Your task to perform on an android device: Go to Yahoo.com Image 0: 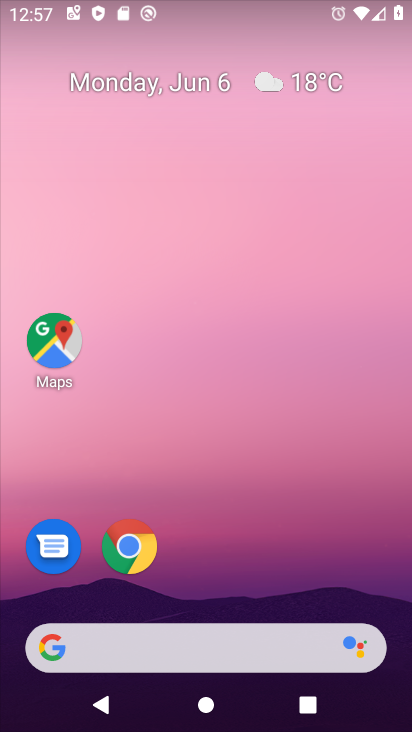
Step 0: click (198, 643)
Your task to perform on an android device: Go to Yahoo.com Image 1: 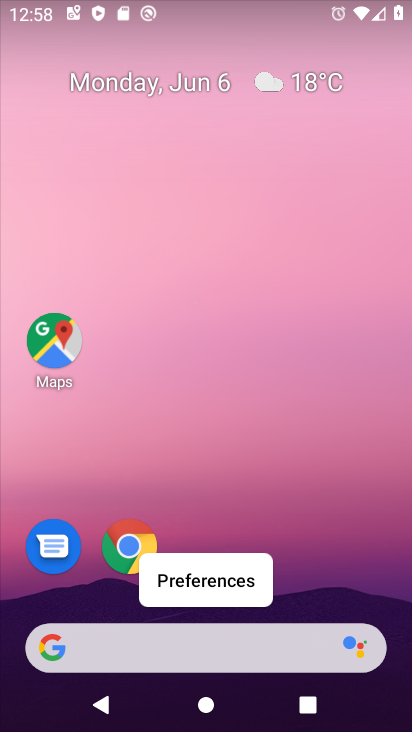
Step 1: type "Yahoo.com"
Your task to perform on an android device: Go to Yahoo.com Image 2: 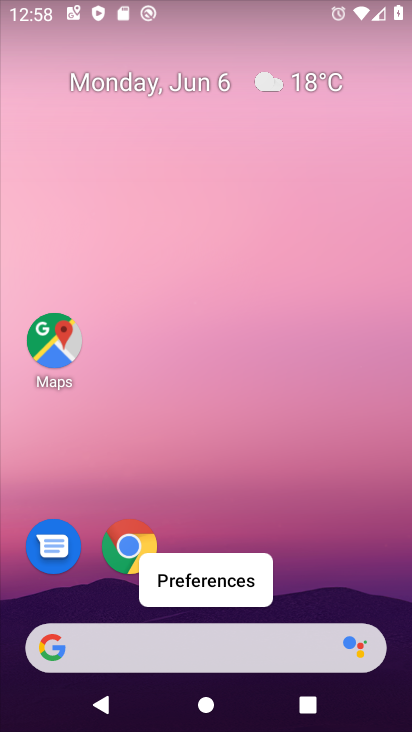
Step 2: click (165, 647)
Your task to perform on an android device: Go to Yahoo.com Image 3: 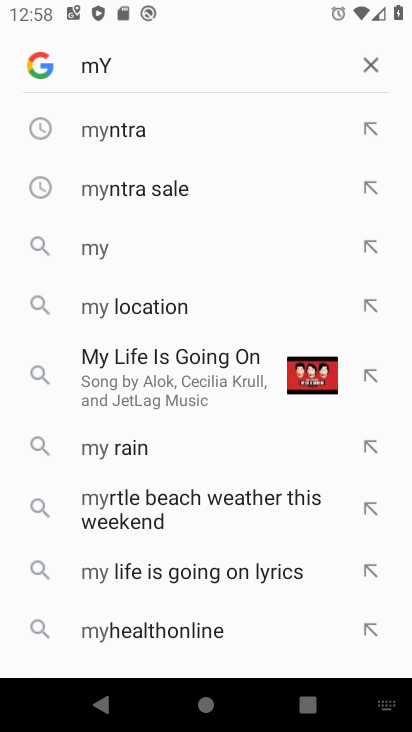
Step 3: click (370, 60)
Your task to perform on an android device: Go to Yahoo.com Image 4: 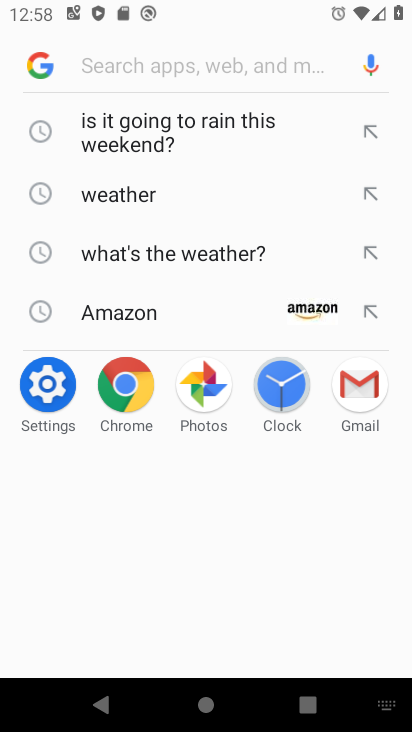
Step 4: type "Yahoo.com"
Your task to perform on an android device: Go to Yahoo.com Image 5: 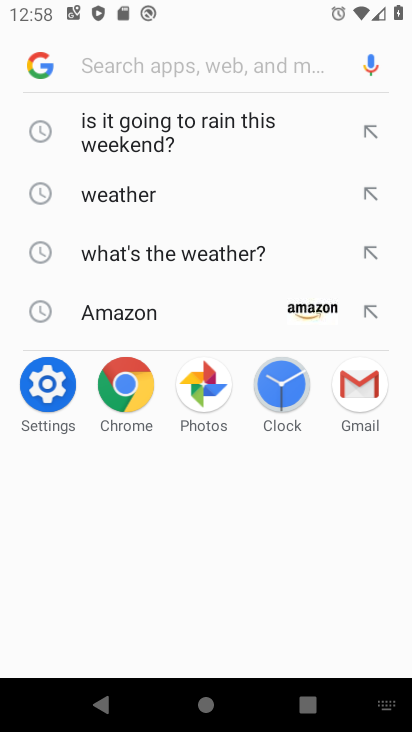
Step 5: click (183, 67)
Your task to perform on an android device: Go to Yahoo.com Image 6: 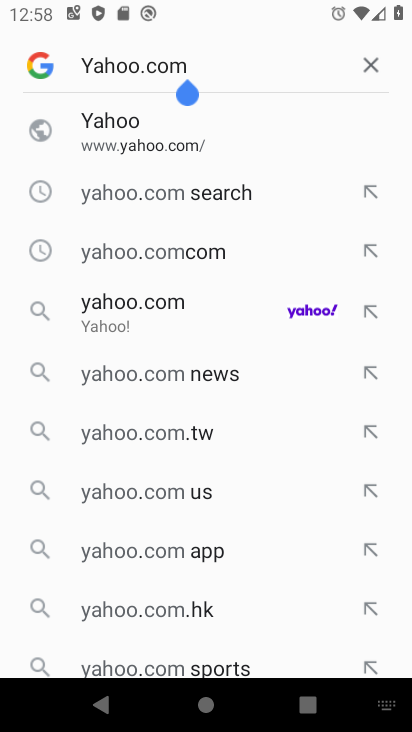
Step 6: click (125, 322)
Your task to perform on an android device: Go to Yahoo.com Image 7: 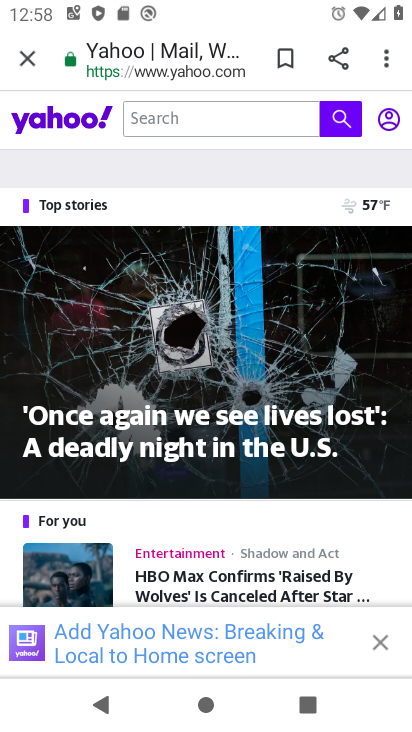
Step 7: task complete